Your task to perform on an android device: all mails in gmail Image 0: 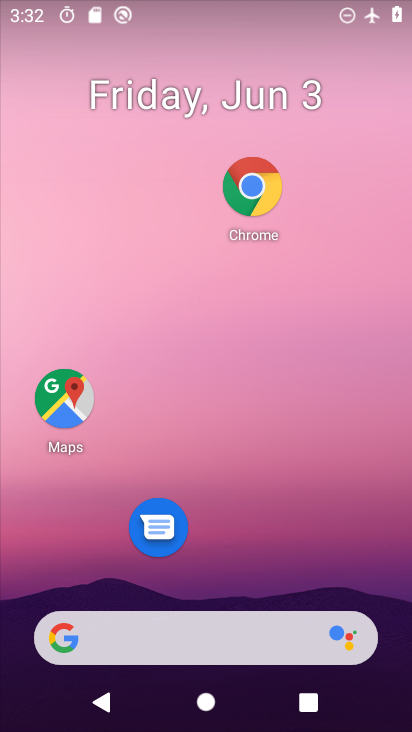
Step 0: drag from (229, 550) to (219, 300)
Your task to perform on an android device: all mails in gmail Image 1: 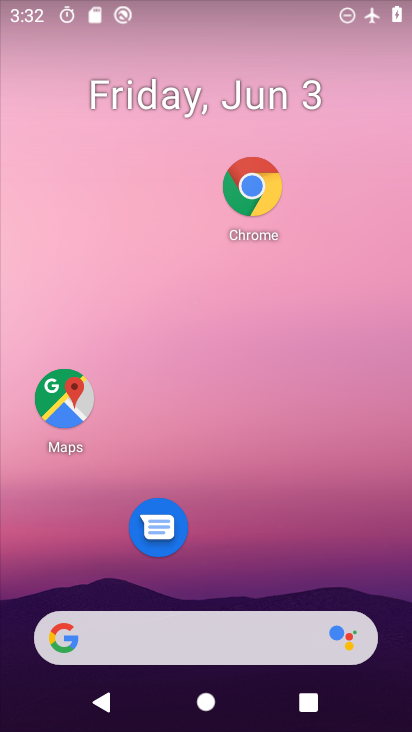
Step 1: drag from (235, 592) to (279, 240)
Your task to perform on an android device: all mails in gmail Image 2: 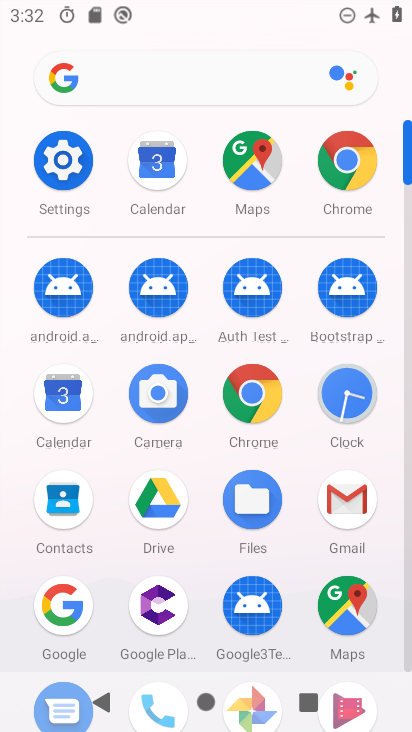
Step 2: click (346, 501)
Your task to perform on an android device: all mails in gmail Image 3: 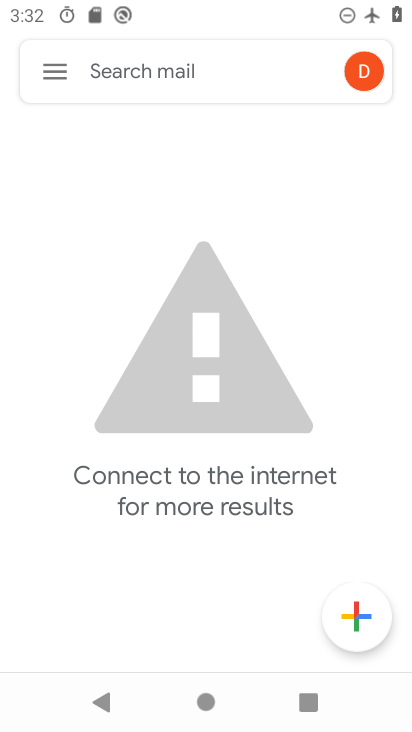
Step 3: click (62, 65)
Your task to perform on an android device: all mails in gmail Image 4: 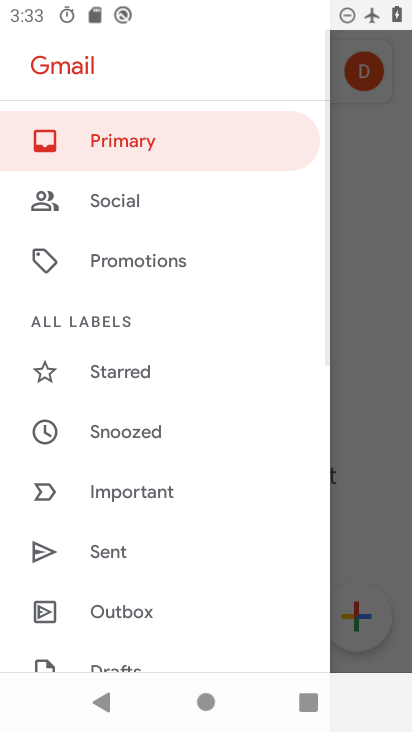
Step 4: drag from (152, 599) to (180, 164)
Your task to perform on an android device: all mails in gmail Image 5: 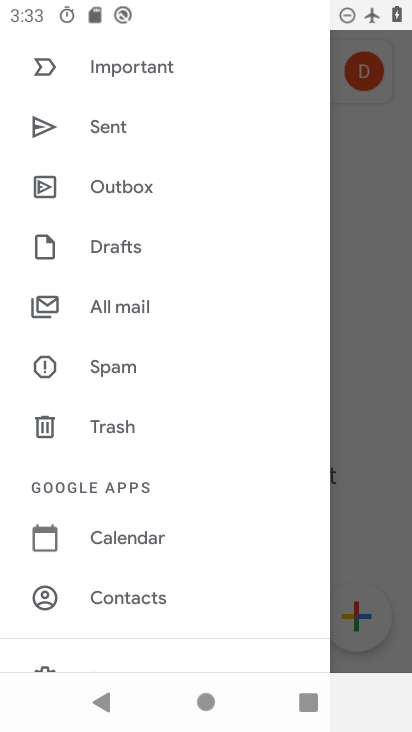
Step 5: click (141, 292)
Your task to perform on an android device: all mails in gmail Image 6: 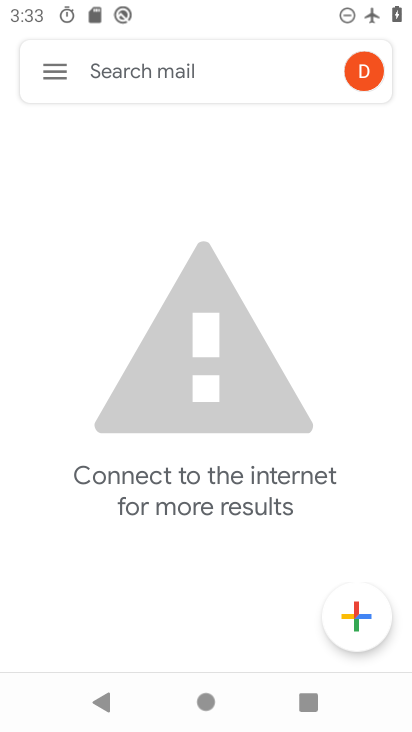
Step 6: task complete